Your task to perform on an android device: search for starred emails in the gmail app Image 0: 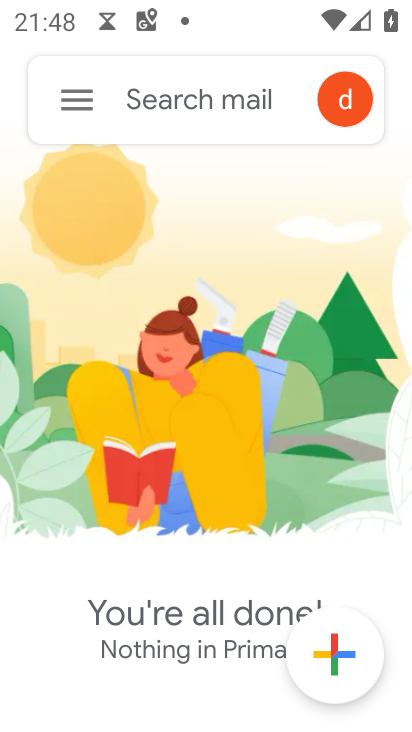
Step 0: click (66, 92)
Your task to perform on an android device: search for starred emails in the gmail app Image 1: 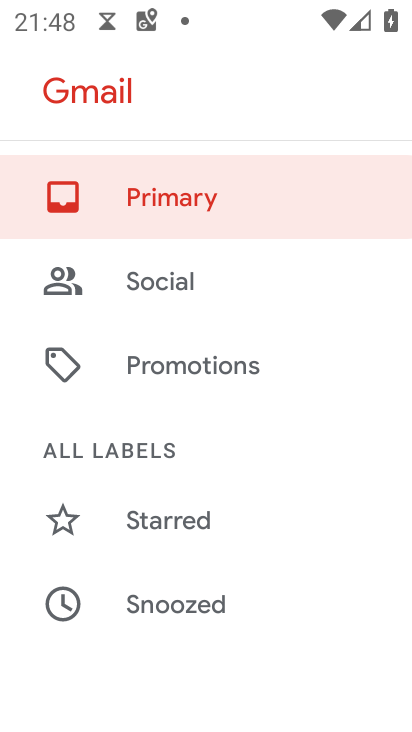
Step 1: drag from (262, 534) to (287, 0)
Your task to perform on an android device: search for starred emails in the gmail app Image 2: 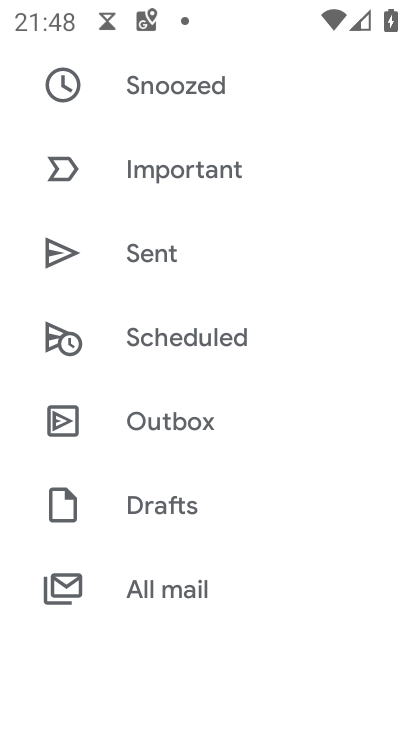
Step 2: drag from (179, 619) to (233, 151)
Your task to perform on an android device: search for starred emails in the gmail app Image 3: 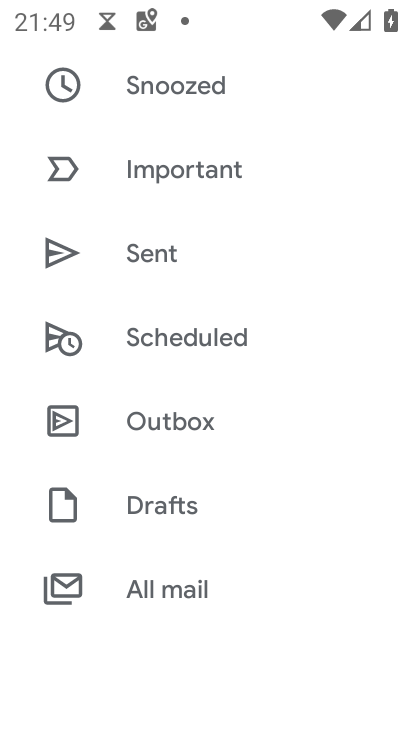
Step 3: drag from (247, 577) to (302, 40)
Your task to perform on an android device: search for starred emails in the gmail app Image 4: 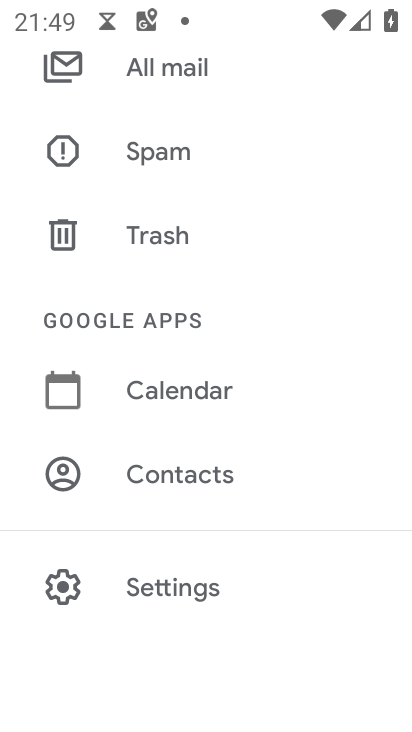
Step 4: drag from (217, 134) to (234, 527)
Your task to perform on an android device: search for starred emails in the gmail app Image 5: 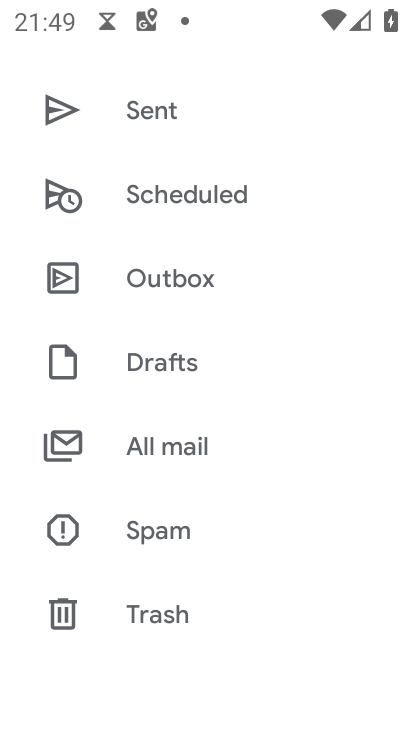
Step 5: drag from (188, 160) to (193, 592)
Your task to perform on an android device: search for starred emails in the gmail app Image 6: 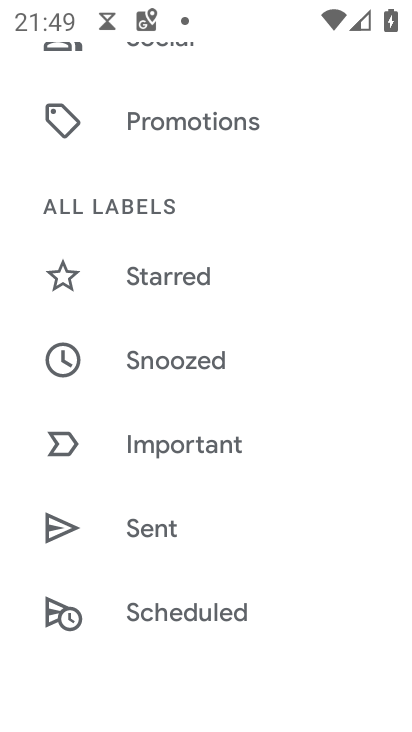
Step 6: click (201, 278)
Your task to perform on an android device: search for starred emails in the gmail app Image 7: 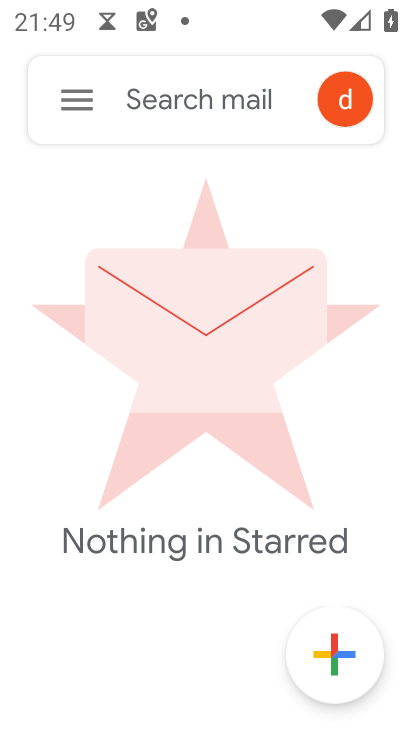
Step 7: task complete